Your task to perform on an android device: What's the latest news in astronomy? Image 0: 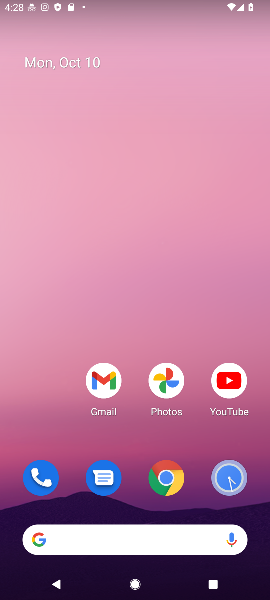
Step 0: click (127, 532)
Your task to perform on an android device: What's the latest news in astronomy? Image 1: 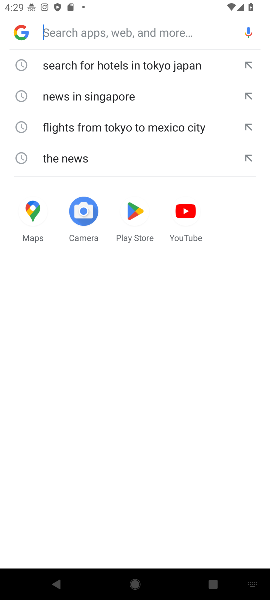
Step 1: type "What's the latest news in astronomy?"
Your task to perform on an android device: What's the latest news in astronomy? Image 2: 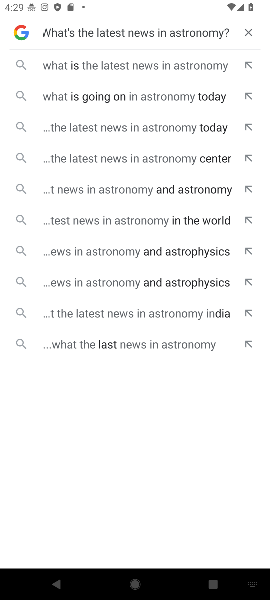
Step 2: click (221, 68)
Your task to perform on an android device: What's the latest news in astronomy? Image 3: 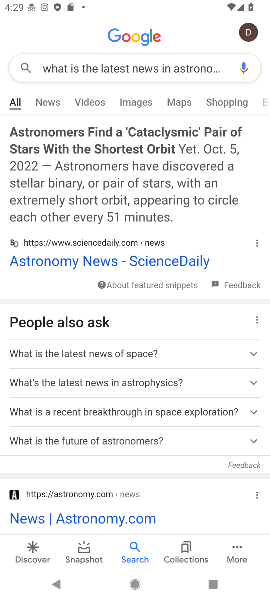
Step 3: click (30, 264)
Your task to perform on an android device: What's the latest news in astronomy? Image 4: 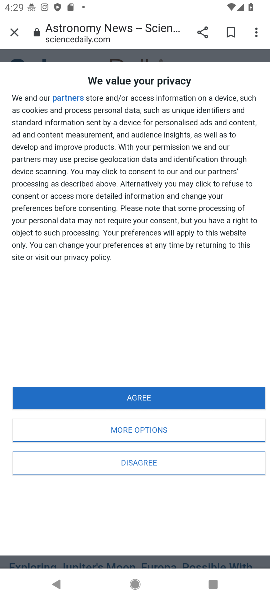
Step 4: click (149, 399)
Your task to perform on an android device: What's the latest news in astronomy? Image 5: 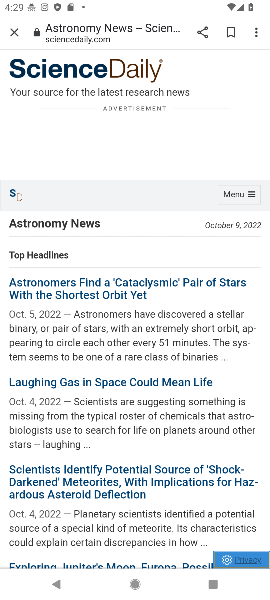
Step 5: task complete